Your task to perform on an android device: Turn off the flashlight Image 0: 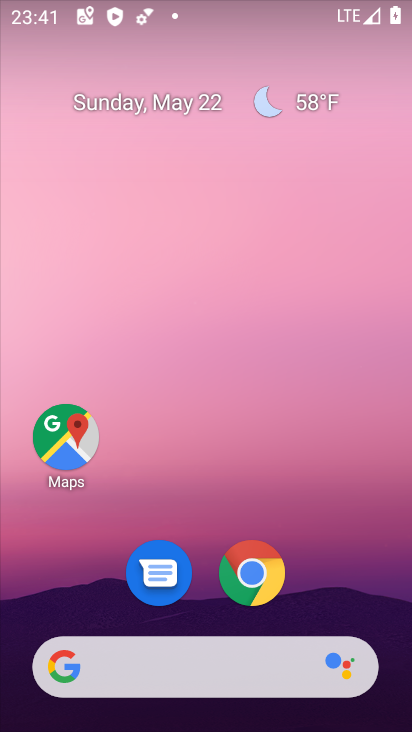
Step 0: drag from (187, 523) to (201, 11)
Your task to perform on an android device: Turn off the flashlight Image 1: 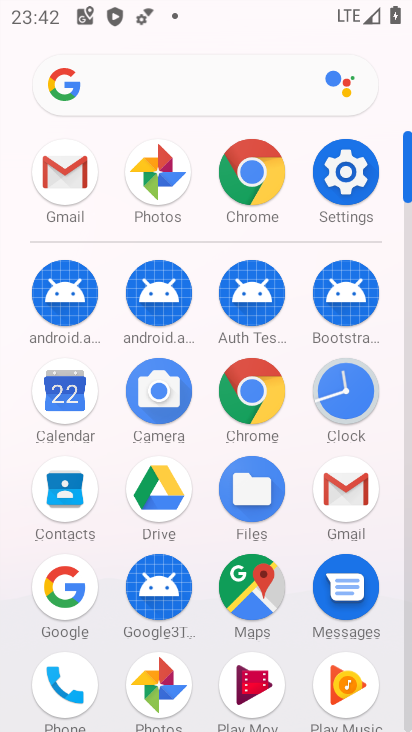
Step 1: click (345, 204)
Your task to perform on an android device: Turn off the flashlight Image 2: 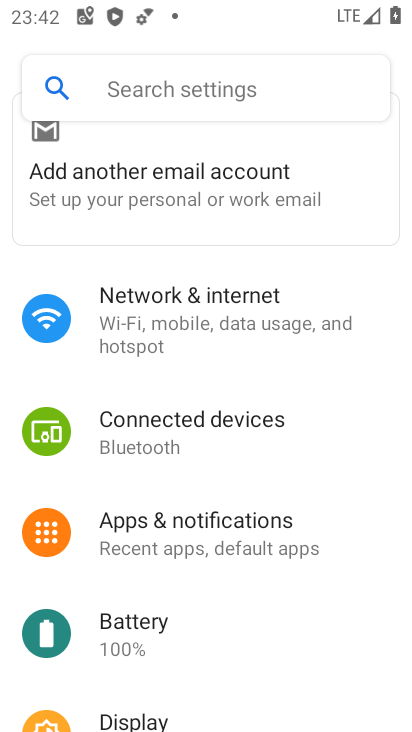
Step 2: click (174, 84)
Your task to perform on an android device: Turn off the flashlight Image 3: 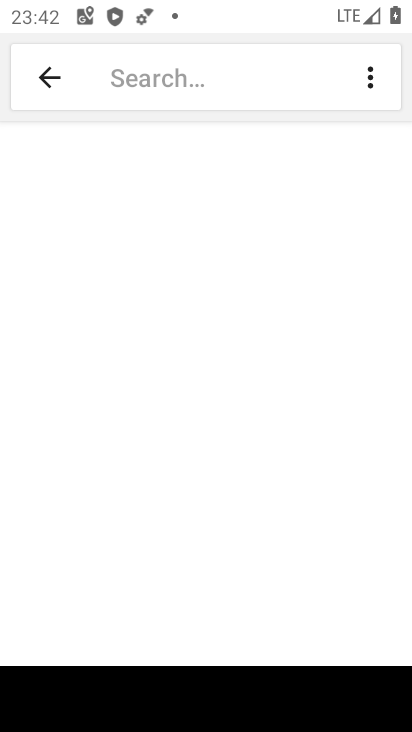
Step 3: type "flashliight"
Your task to perform on an android device: Turn off the flashlight Image 4: 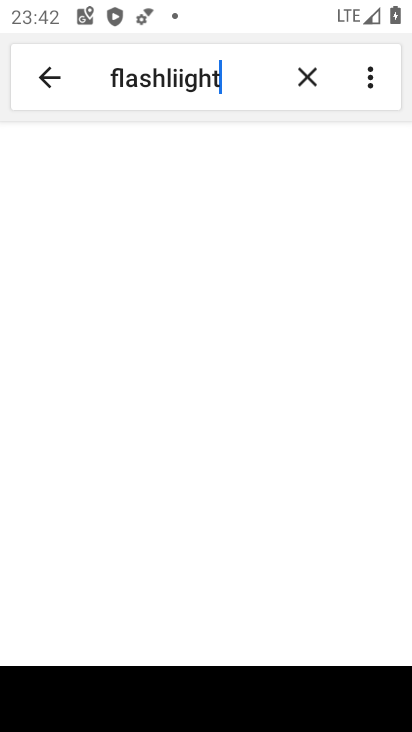
Step 4: click (172, 146)
Your task to perform on an android device: Turn off the flashlight Image 5: 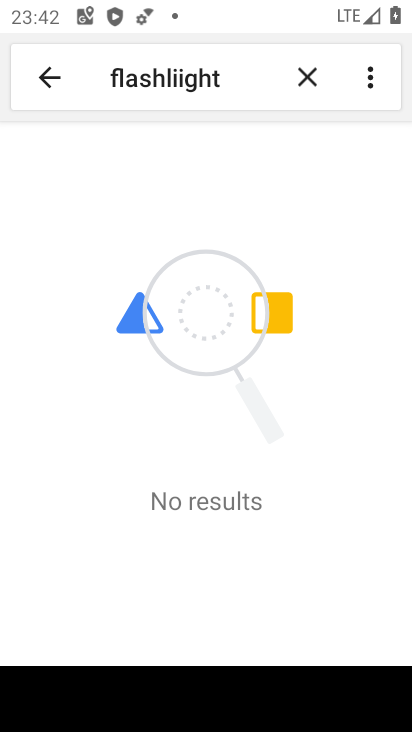
Step 5: task complete